Your task to perform on an android device: Find coffee shops on Maps Image 0: 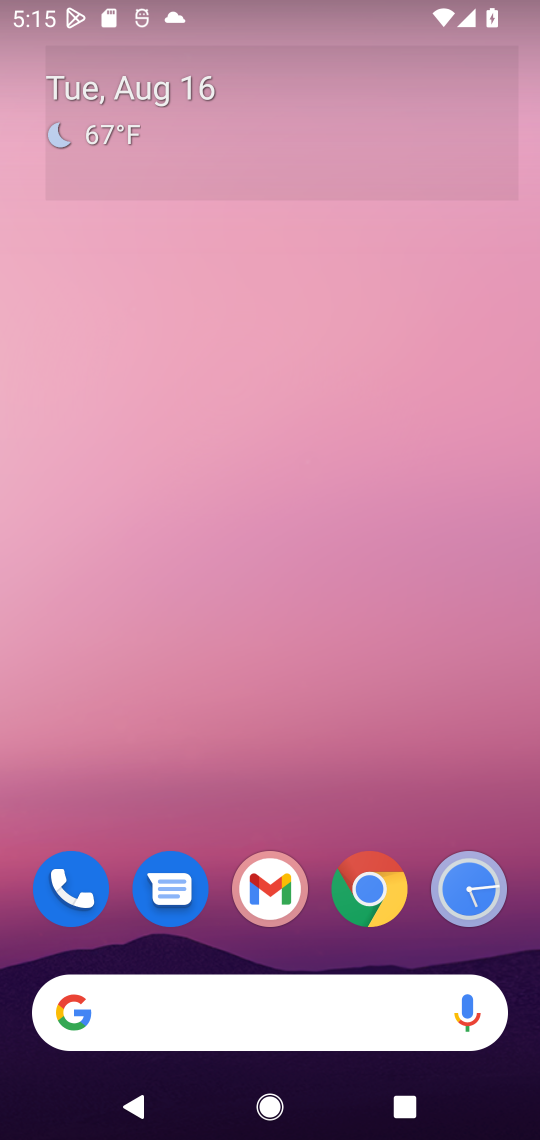
Step 0: drag from (324, 738) to (307, 292)
Your task to perform on an android device: Find coffee shops on Maps Image 1: 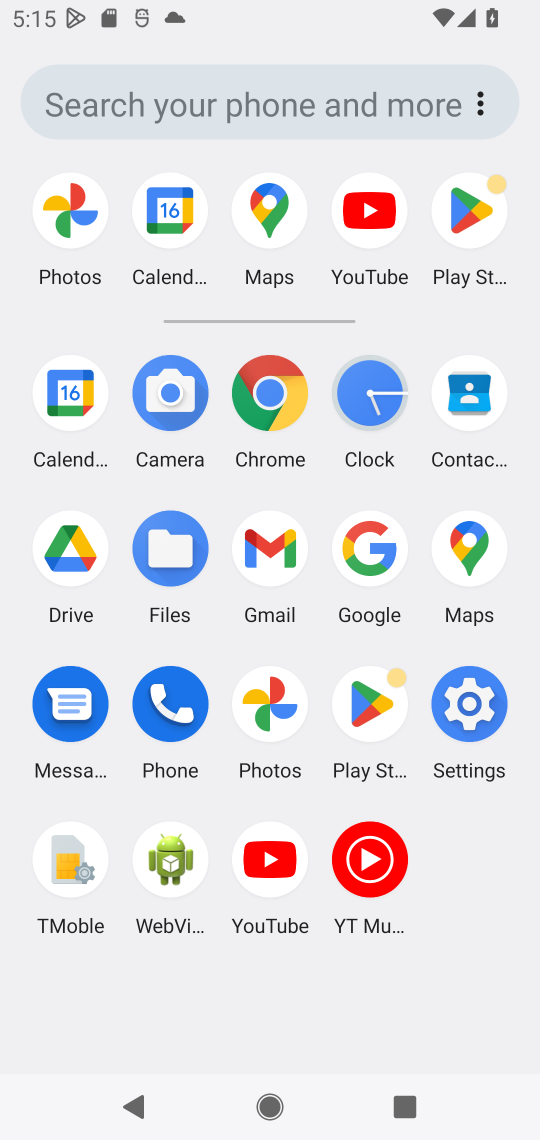
Step 1: click (484, 542)
Your task to perform on an android device: Find coffee shops on Maps Image 2: 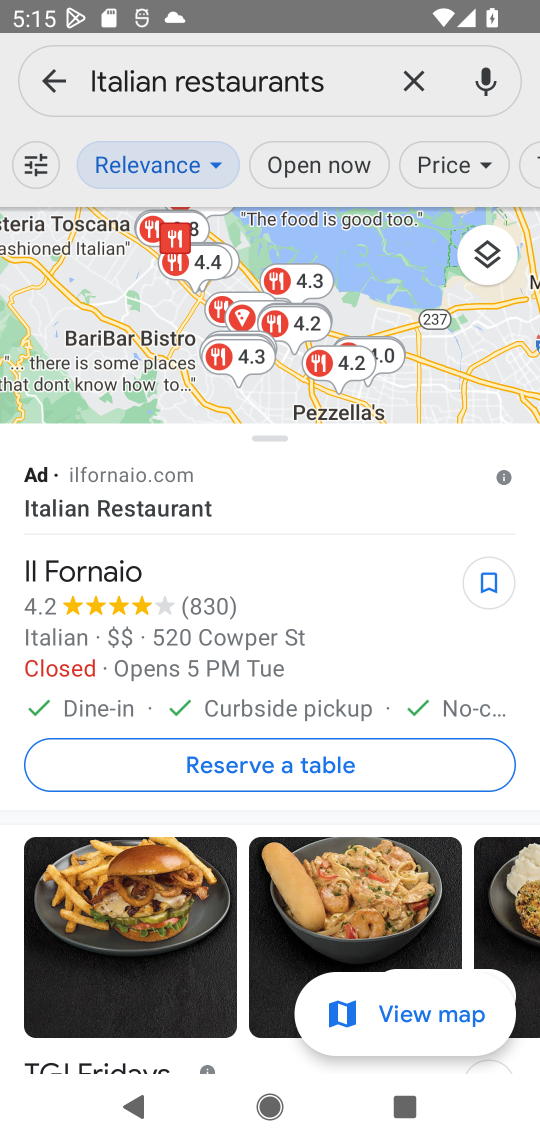
Step 2: click (412, 73)
Your task to perform on an android device: Find coffee shops on Maps Image 3: 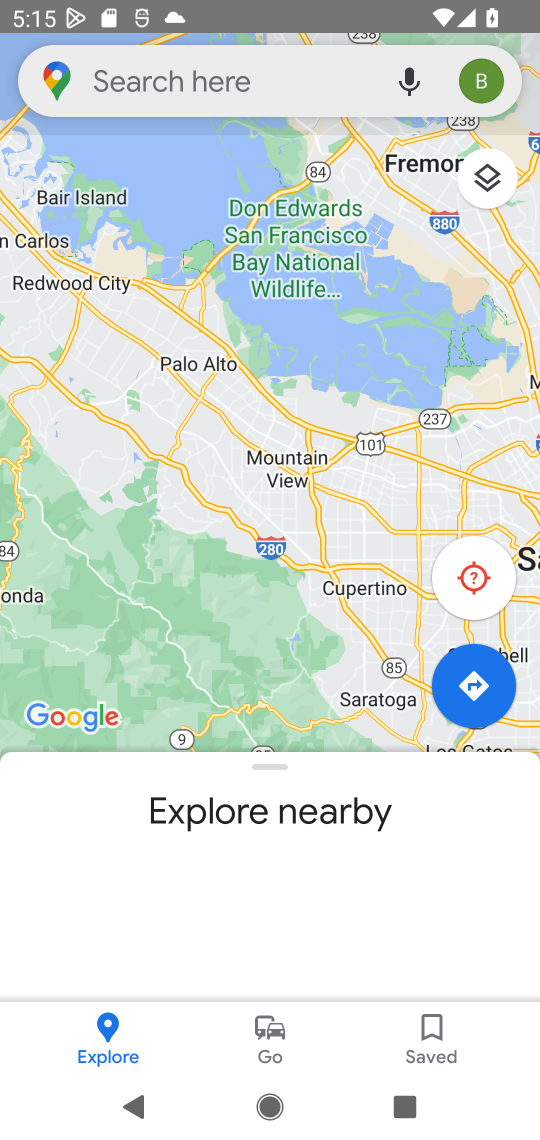
Step 3: task complete